Your task to perform on an android device: Open the web browser Image 0: 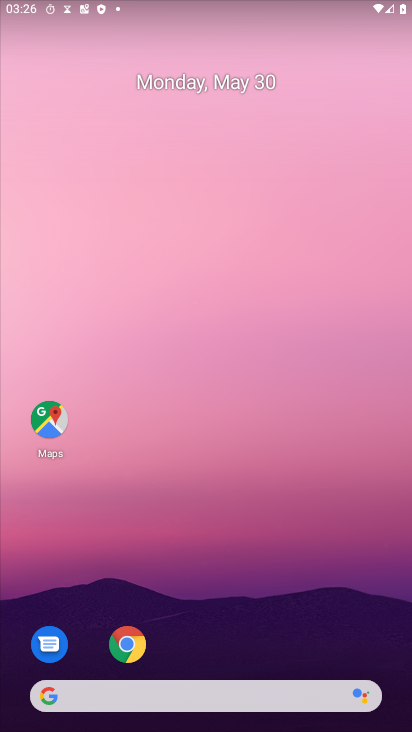
Step 0: press home button
Your task to perform on an android device: Open the web browser Image 1: 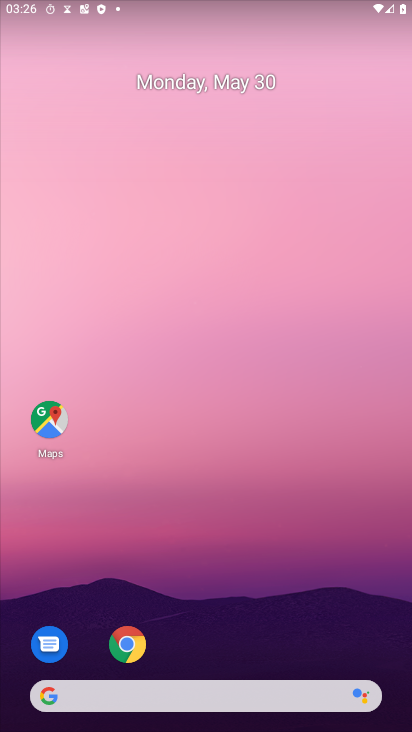
Step 1: press home button
Your task to perform on an android device: Open the web browser Image 2: 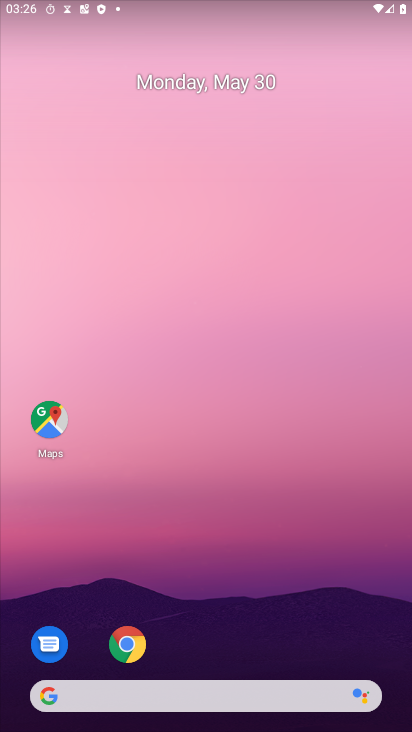
Step 2: click (47, 687)
Your task to perform on an android device: Open the web browser Image 3: 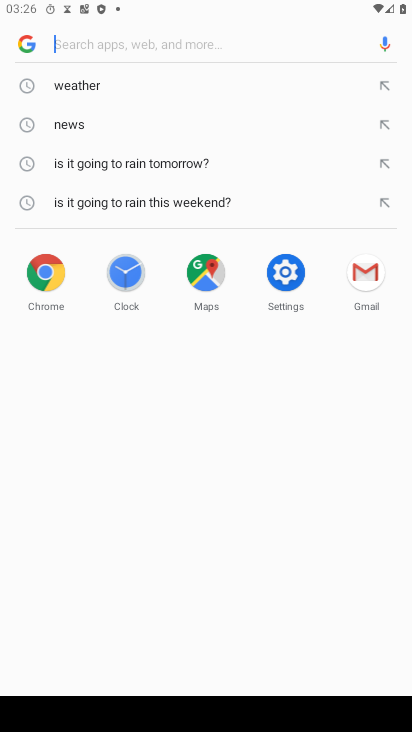
Step 3: task complete